Your task to perform on an android device: What's the weather going to be tomorrow? Image 0: 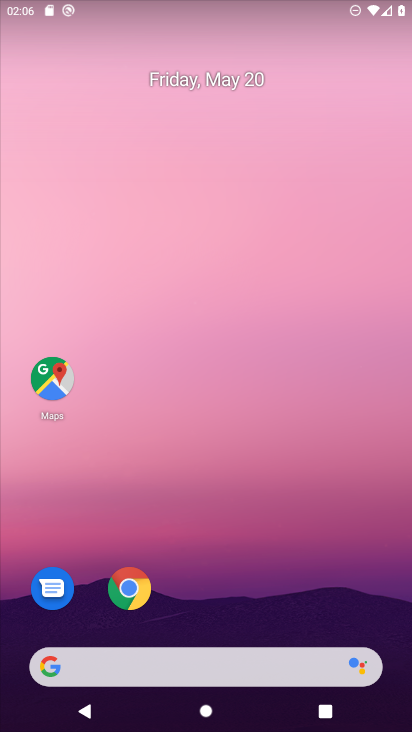
Step 0: drag from (7, 206) to (391, 259)
Your task to perform on an android device: What's the weather going to be tomorrow? Image 1: 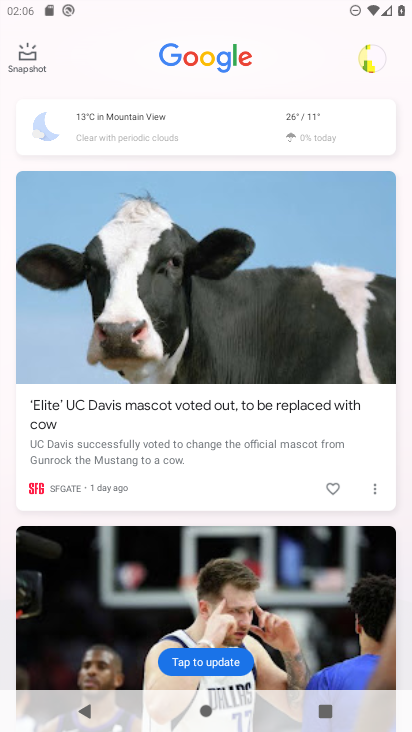
Step 1: click (308, 119)
Your task to perform on an android device: What's the weather going to be tomorrow? Image 2: 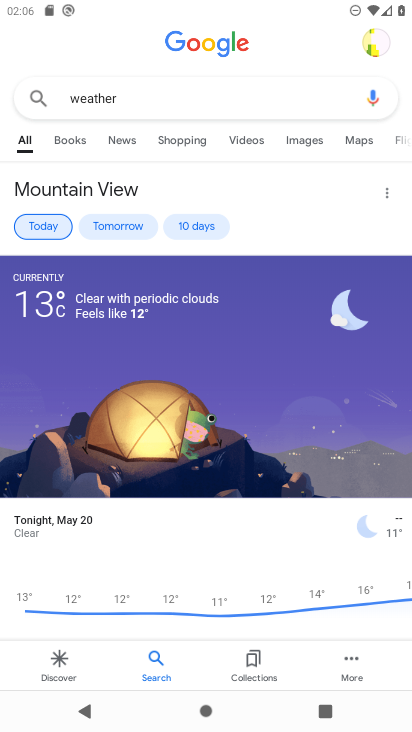
Step 2: click (108, 225)
Your task to perform on an android device: What's the weather going to be tomorrow? Image 3: 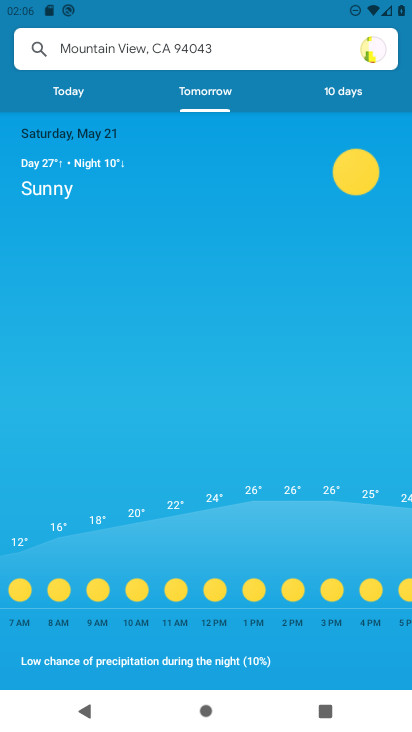
Step 3: task complete